Your task to perform on an android device: Search for Italian restaurants on Maps Image 0: 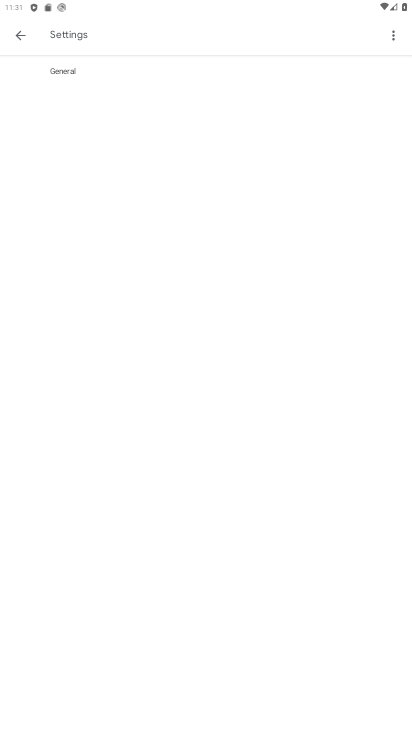
Step 0: press home button
Your task to perform on an android device: Search for Italian restaurants on Maps Image 1: 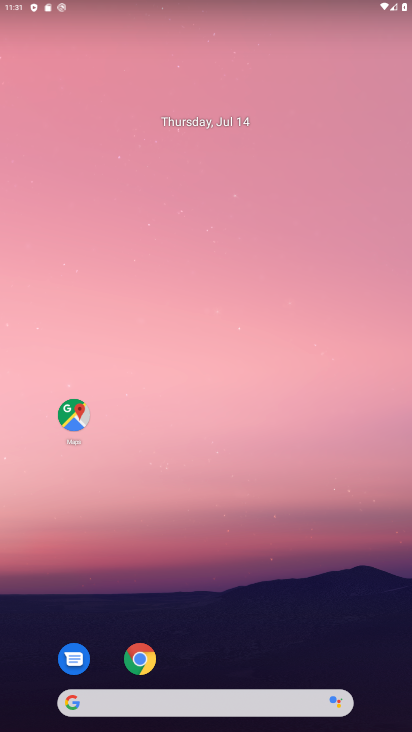
Step 1: click (69, 424)
Your task to perform on an android device: Search for Italian restaurants on Maps Image 2: 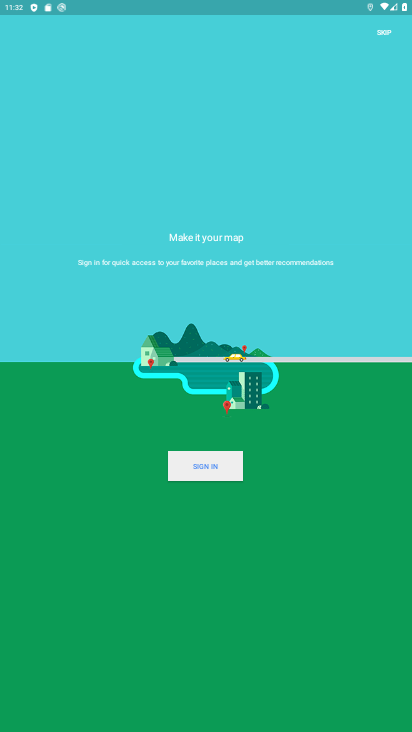
Step 2: click (203, 472)
Your task to perform on an android device: Search for Italian restaurants on Maps Image 3: 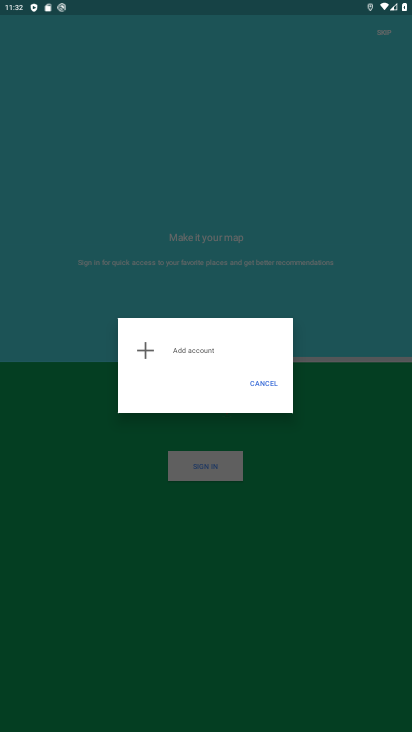
Step 3: click (267, 383)
Your task to perform on an android device: Search for Italian restaurants on Maps Image 4: 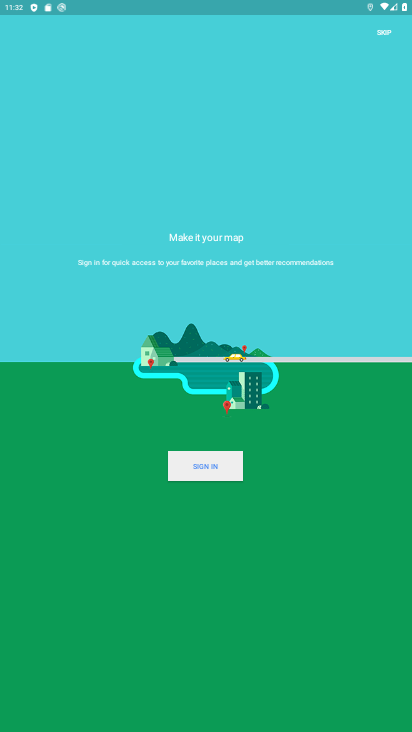
Step 4: click (382, 36)
Your task to perform on an android device: Search for Italian restaurants on Maps Image 5: 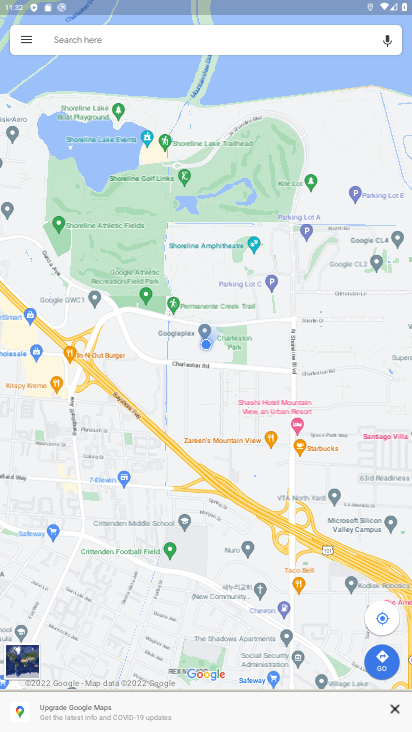
Step 5: click (69, 41)
Your task to perform on an android device: Search for Italian restaurants on Maps Image 6: 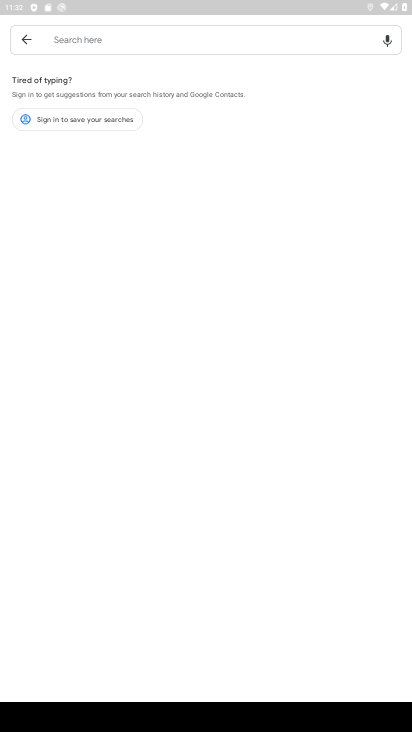
Step 6: type "italian restaurants "
Your task to perform on an android device: Search for Italian restaurants on Maps Image 7: 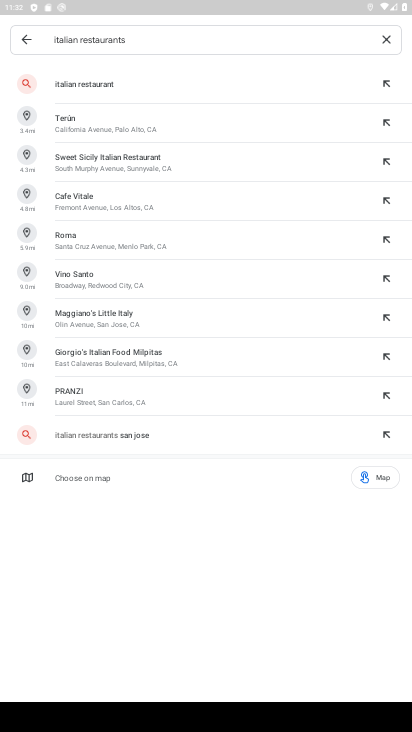
Step 7: click (93, 90)
Your task to perform on an android device: Search for Italian restaurants on Maps Image 8: 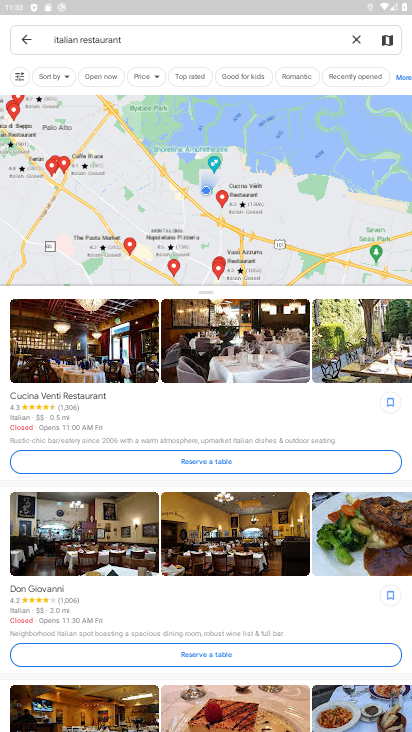
Step 8: task complete